Your task to perform on an android device: turn vacation reply on in the gmail app Image 0: 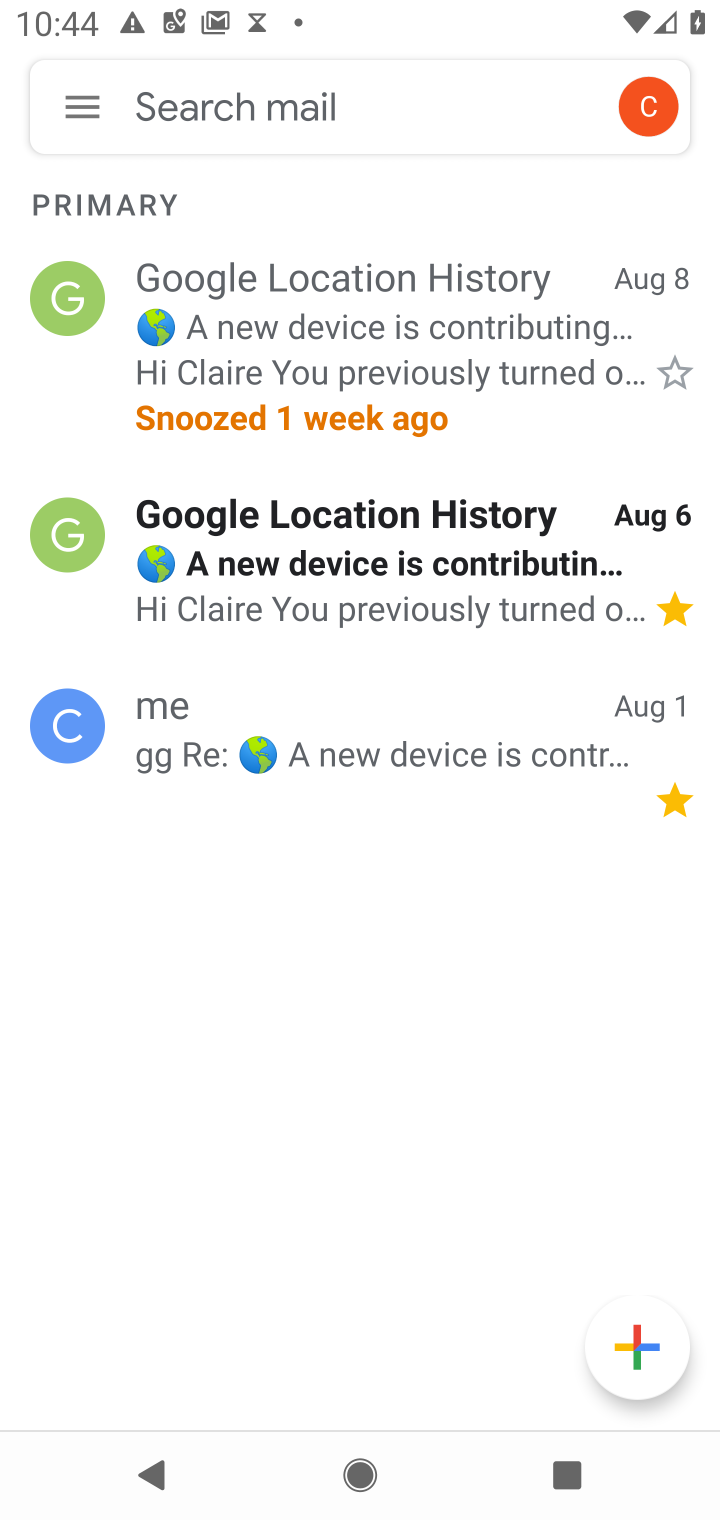
Step 0: click (71, 132)
Your task to perform on an android device: turn vacation reply on in the gmail app Image 1: 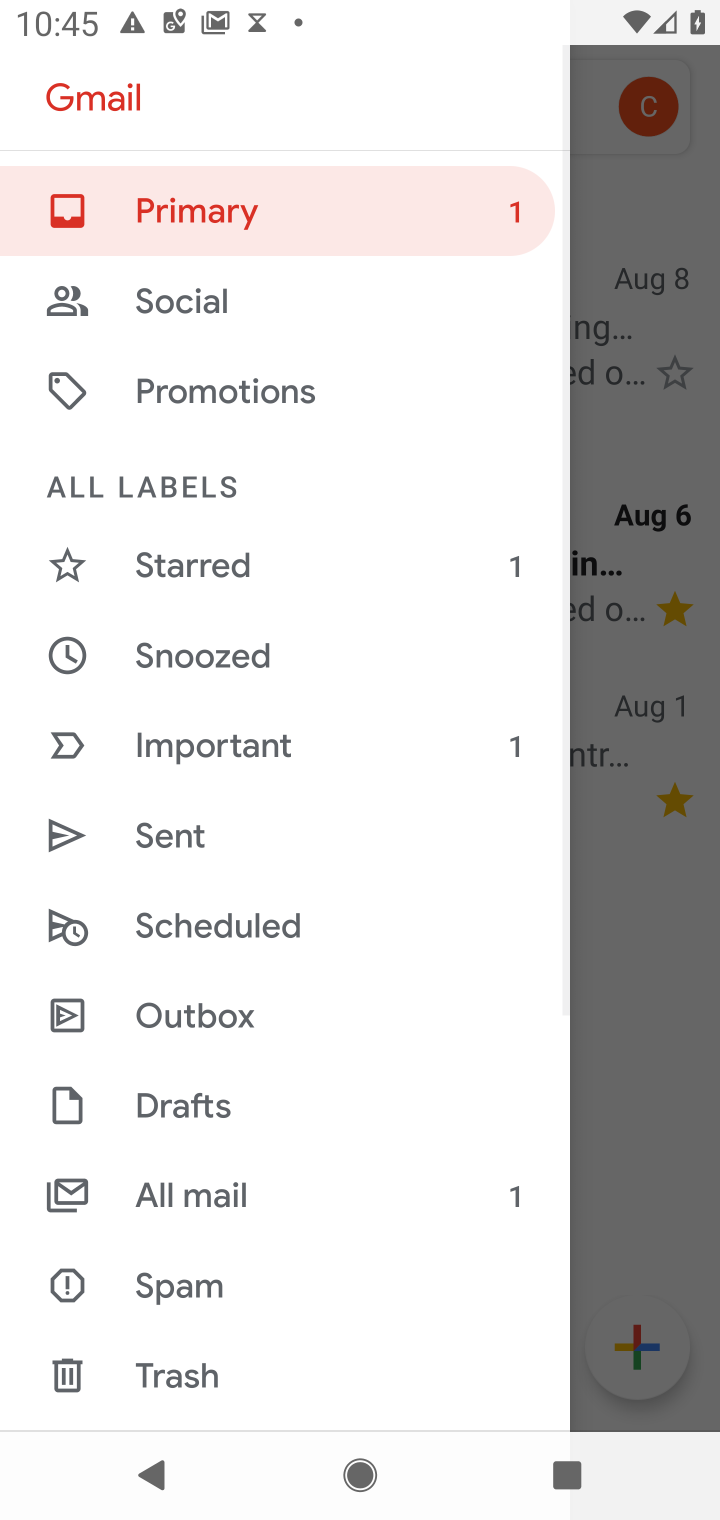
Step 1: drag from (224, 1324) to (295, 642)
Your task to perform on an android device: turn vacation reply on in the gmail app Image 2: 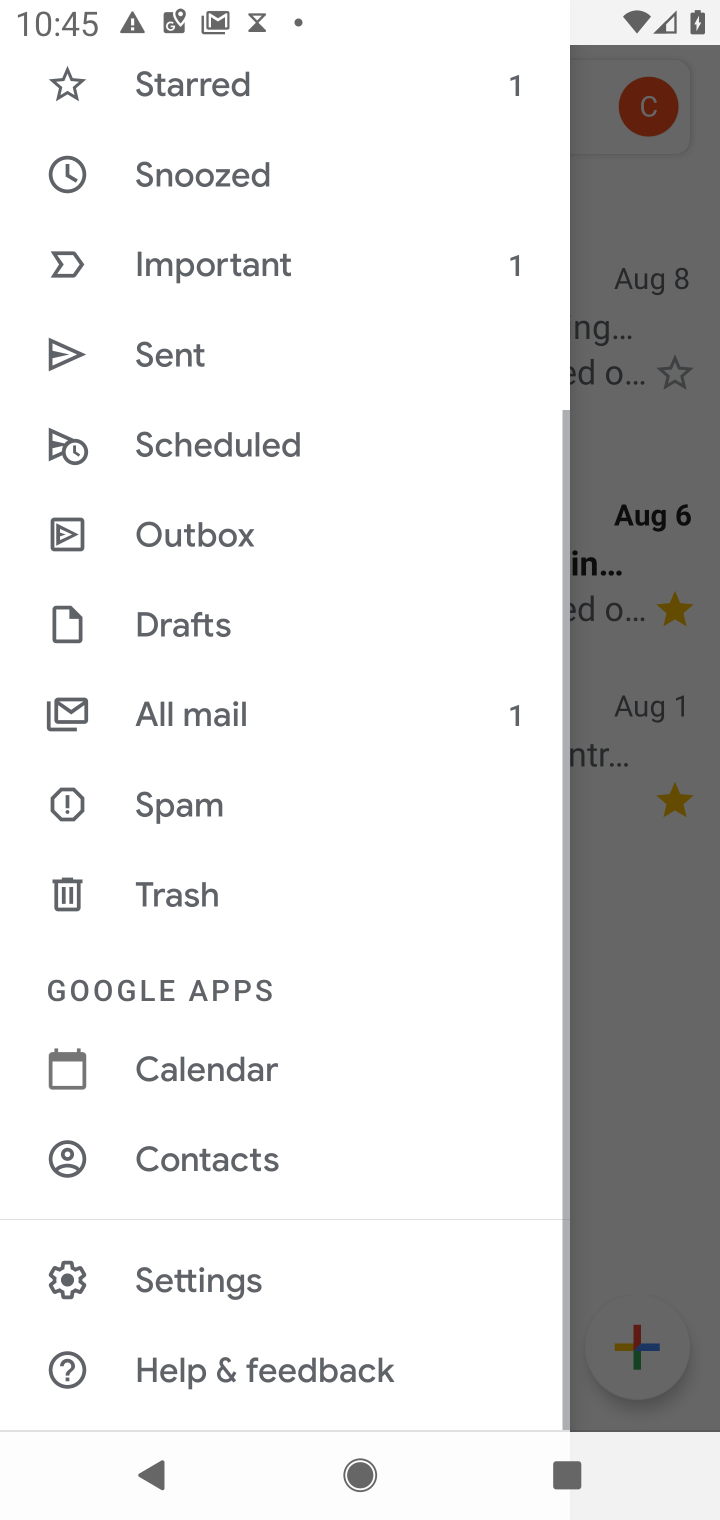
Step 2: click (216, 1256)
Your task to perform on an android device: turn vacation reply on in the gmail app Image 3: 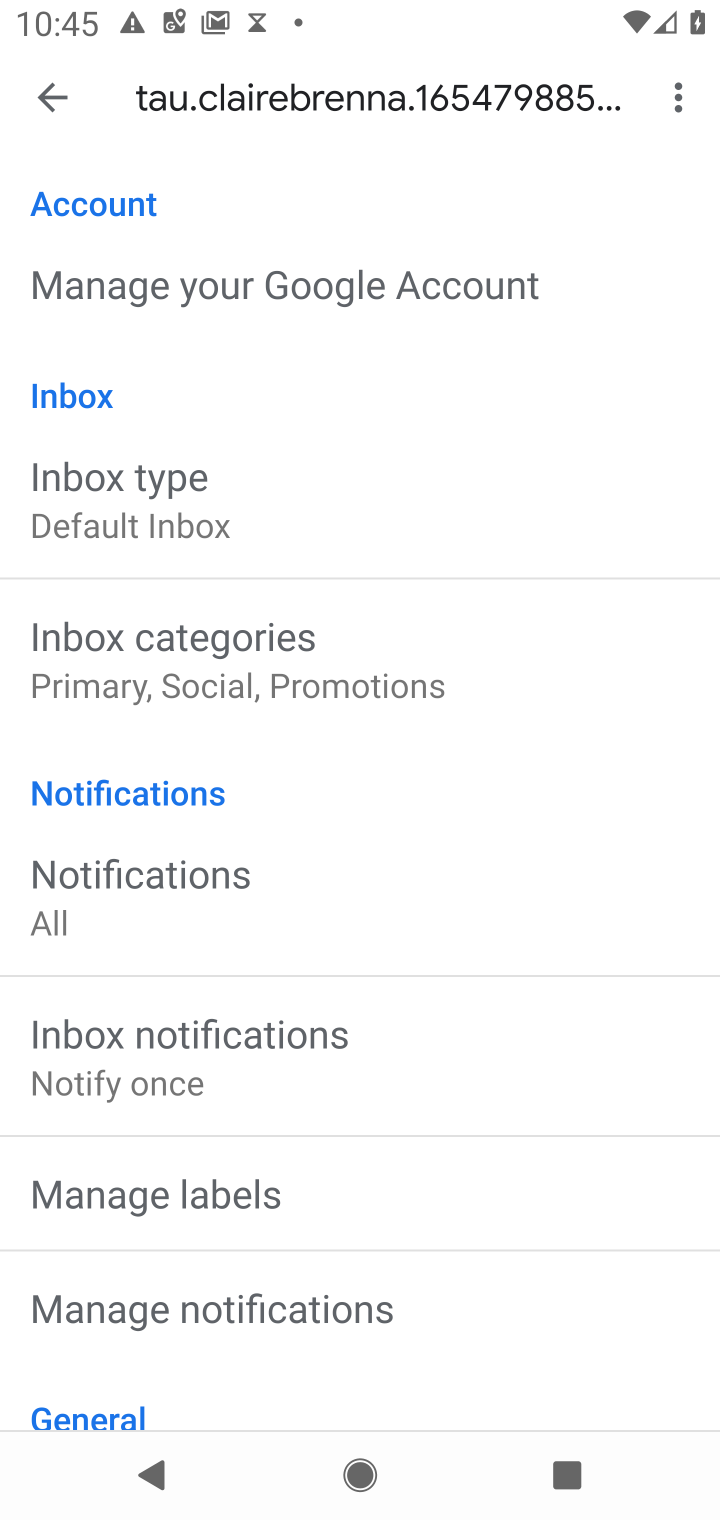
Step 3: drag from (343, 1301) to (413, 549)
Your task to perform on an android device: turn vacation reply on in the gmail app Image 4: 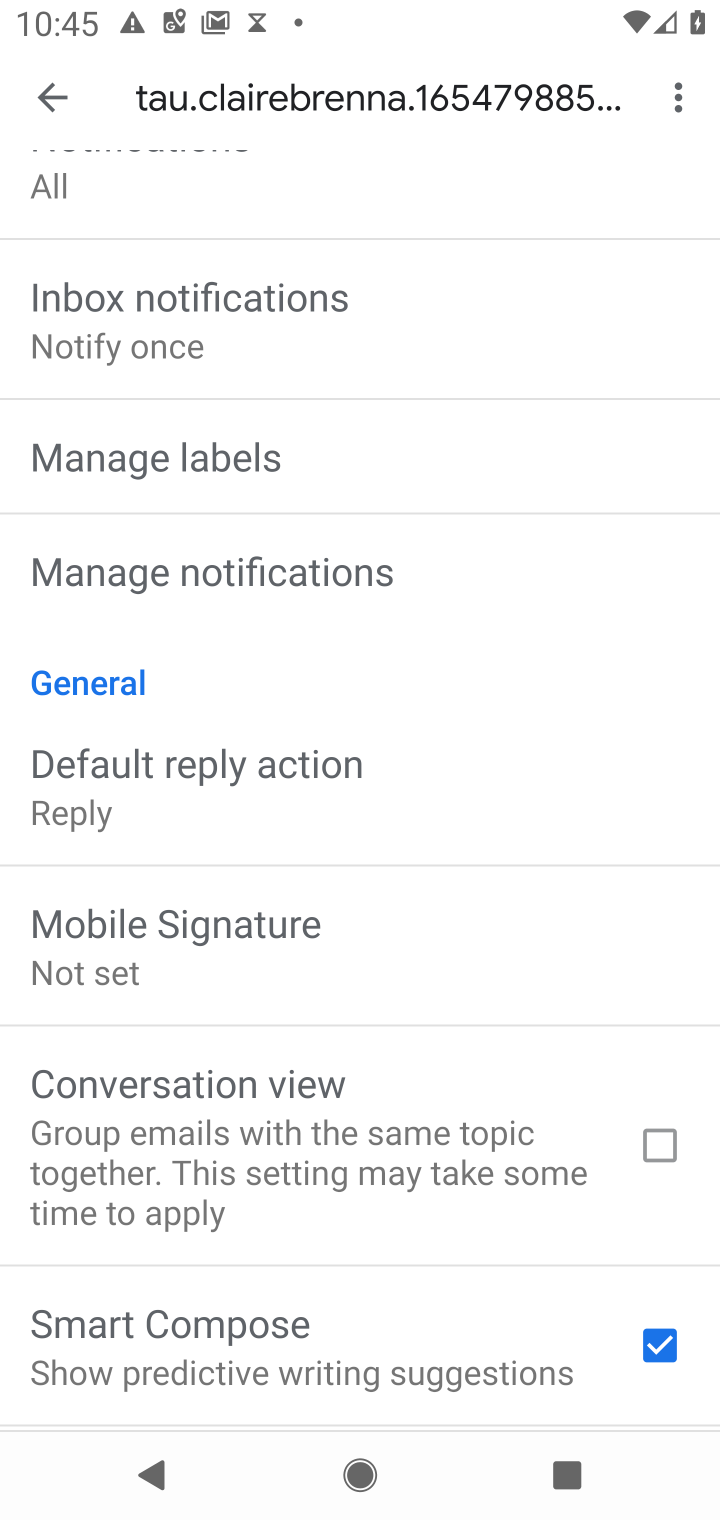
Step 4: drag from (341, 1252) to (375, 687)
Your task to perform on an android device: turn vacation reply on in the gmail app Image 5: 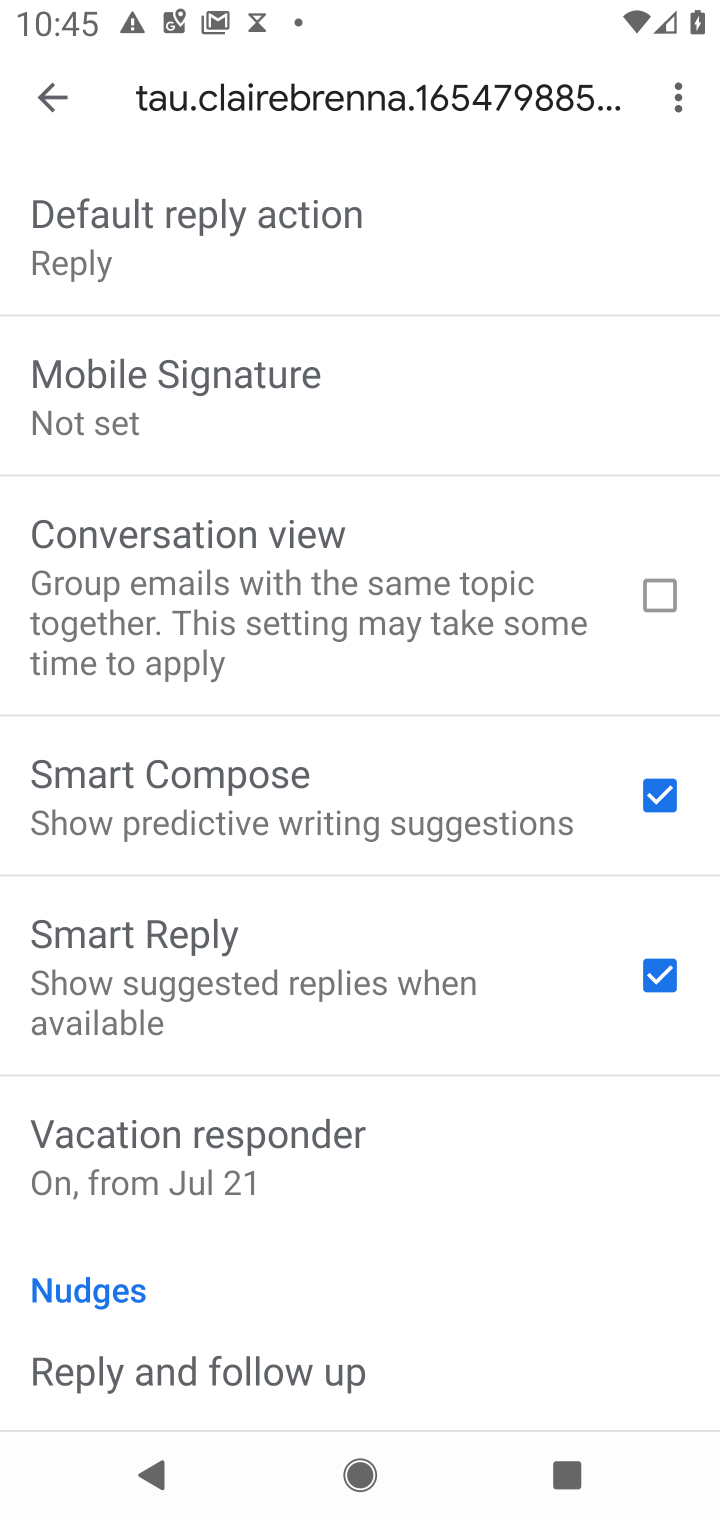
Step 5: click (332, 1169)
Your task to perform on an android device: turn vacation reply on in the gmail app Image 6: 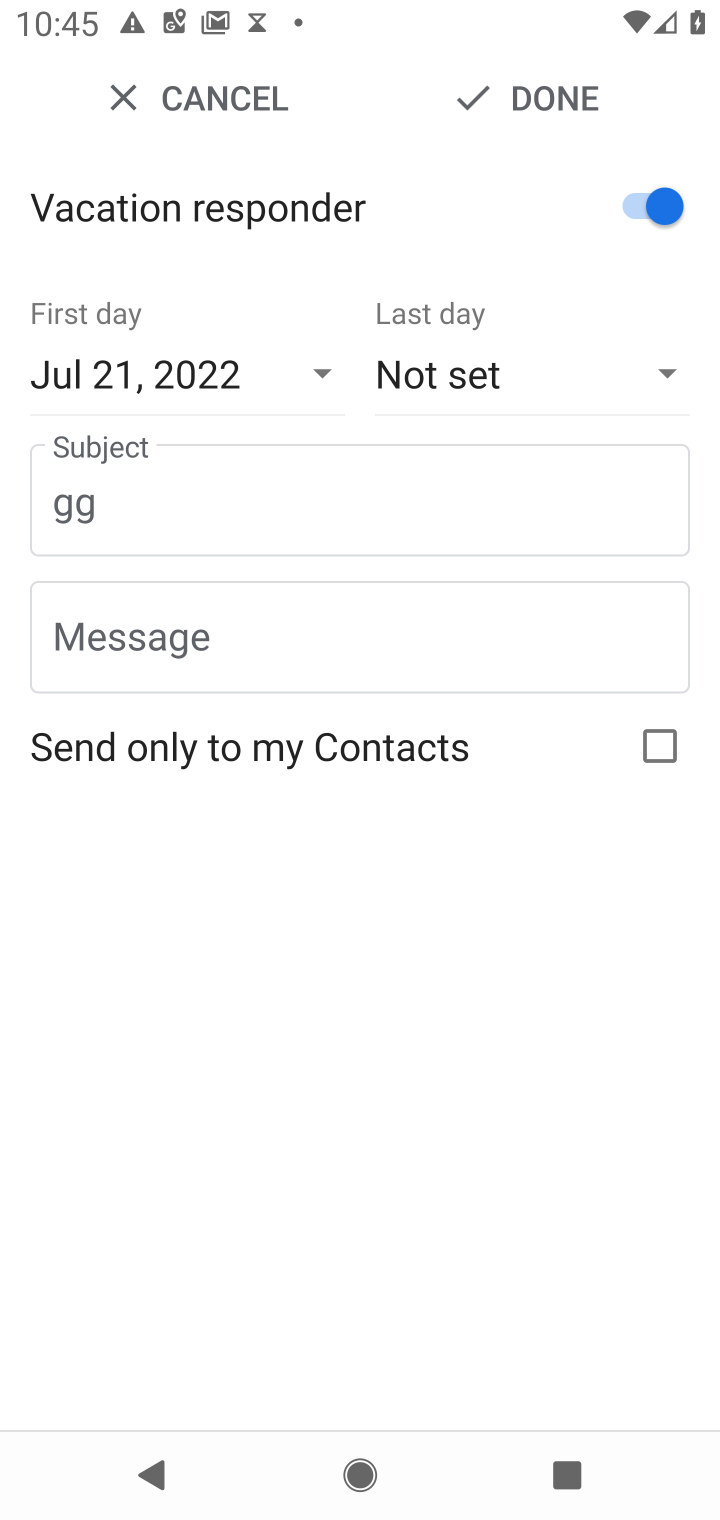
Step 6: task complete